Your task to perform on an android device: allow notifications from all sites in the chrome app Image 0: 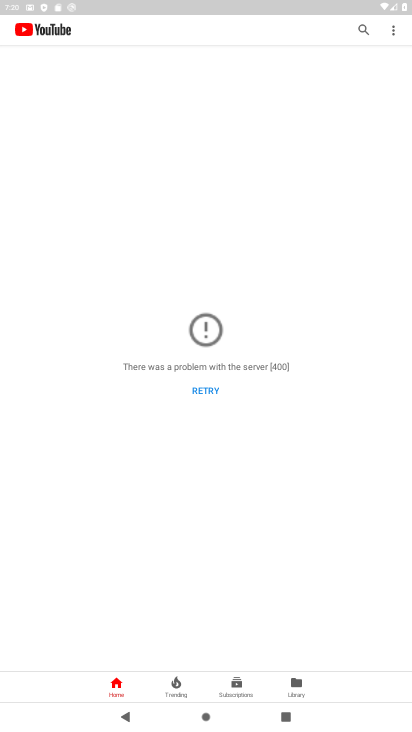
Step 0: press home button
Your task to perform on an android device: allow notifications from all sites in the chrome app Image 1: 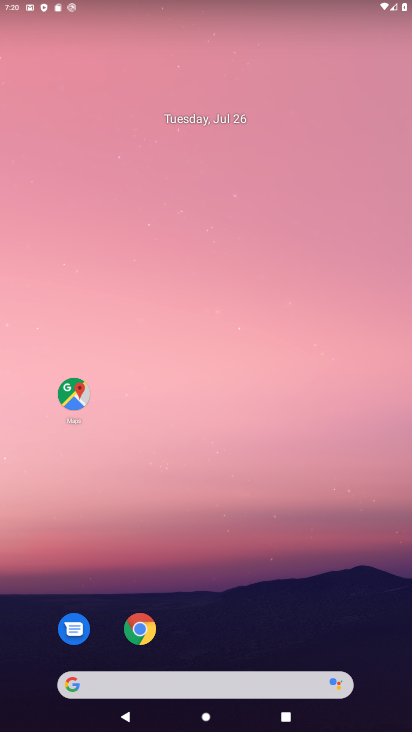
Step 1: drag from (192, 627) to (191, 0)
Your task to perform on an android device: allow notifications from all sites in the chrome app Image 2: 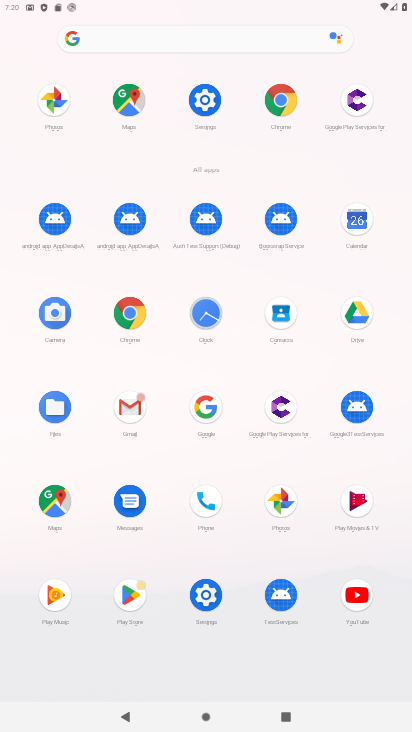
Step 2: click (129, 303)
Your task to perform on an android device: allow notifications from all sites in the chrome app Image 3: 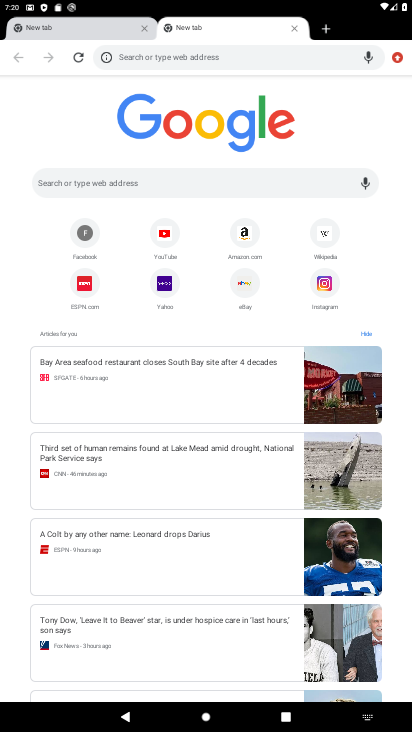
Step 3: click (399, 55)
Your task to perform on an android device: allow notifications from all sites in the chrome app Image 4: 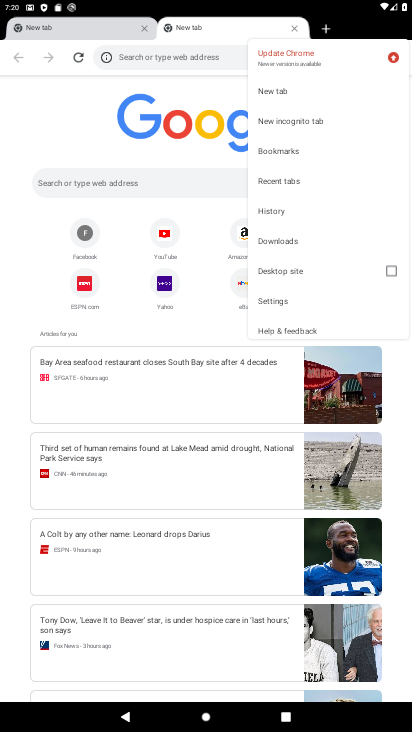
Step 4: click (281, 302)
Your task to perform on an android device: allow notifications from all sites in the chrome app Image 5: 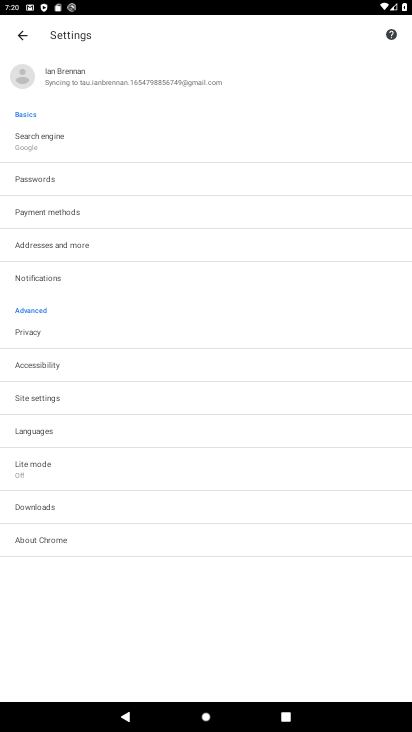
Step 5: click (44, 279)
Your task to perform on an android device: allow notifications from all sites in the chrome app Image 6: 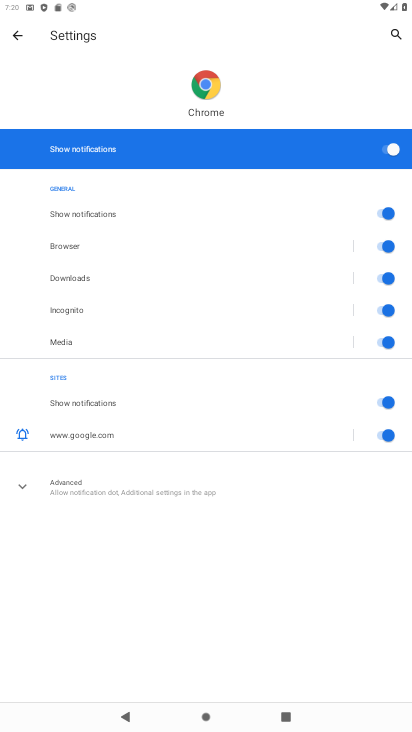
Step 6: task complete